Your task to perform on an android device: Search for "macbook pro 13 inch" on walmart.com, select the first entry, add it to the cart, then select checkout. Image 0: 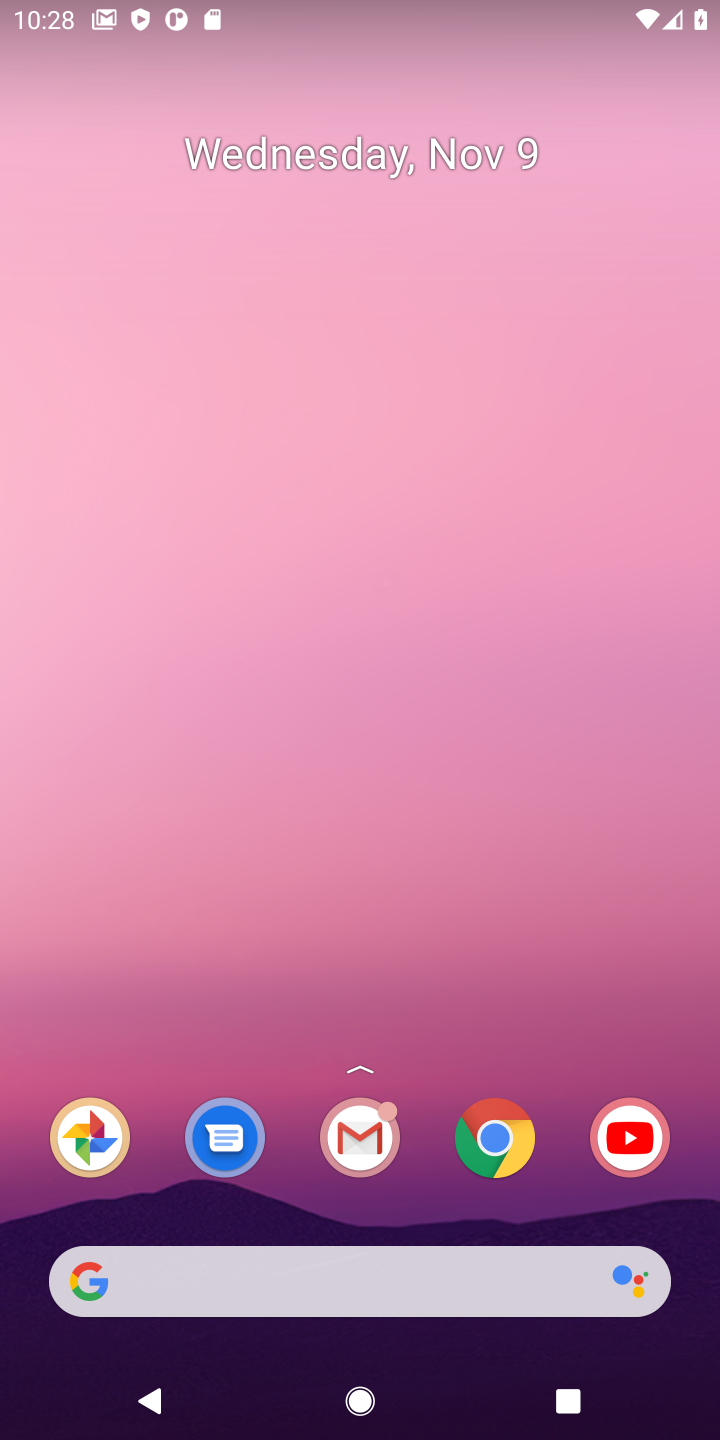
Step 0: drag from (297, 1214) to (197, 125)
Your task to perform on an android device: Search for "macbook pro 13 inch" on walmart.com, select the first entry, add it to the cart, then select checkout. Image 1: 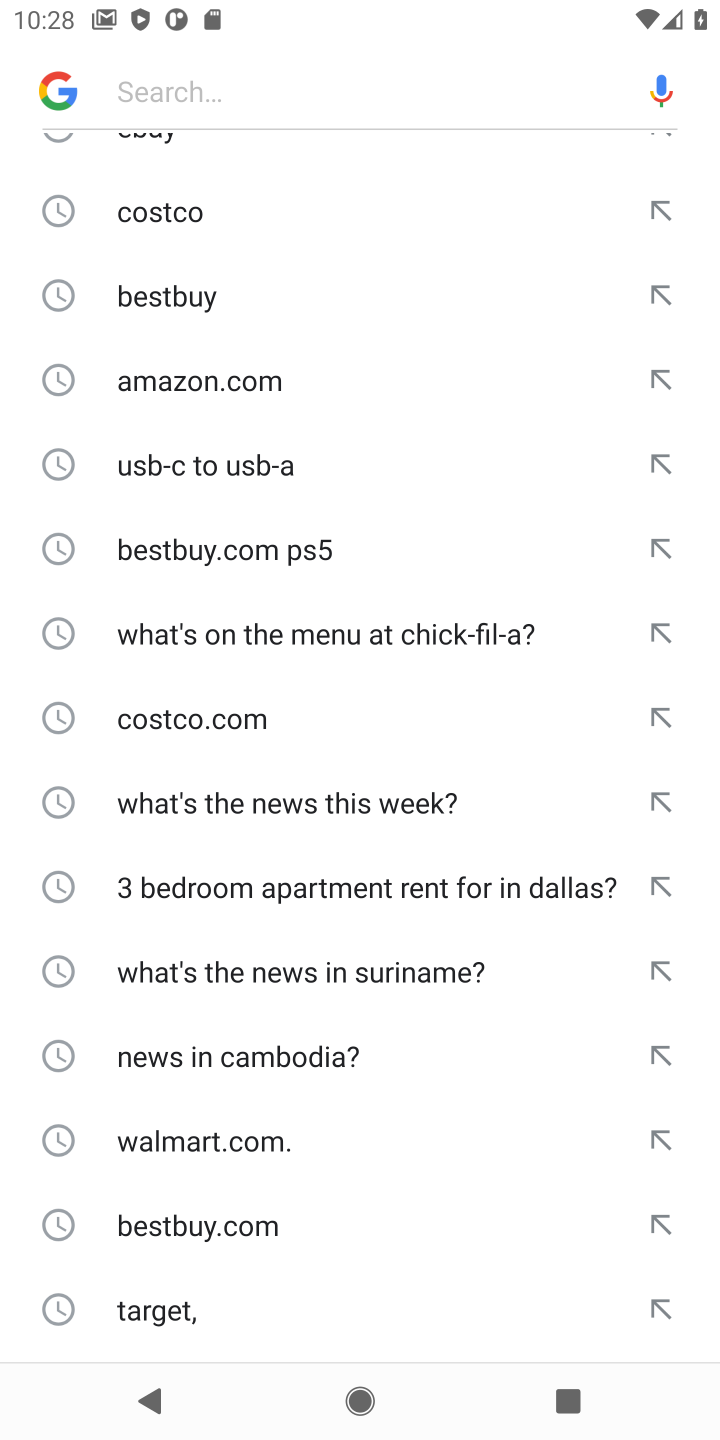
Step 1: press home button
Your task to perform on an android device: Search for "macbook pro 13 inch" on walmart.com, select the first entry, add it to the cart, then select checkout. Image 2: 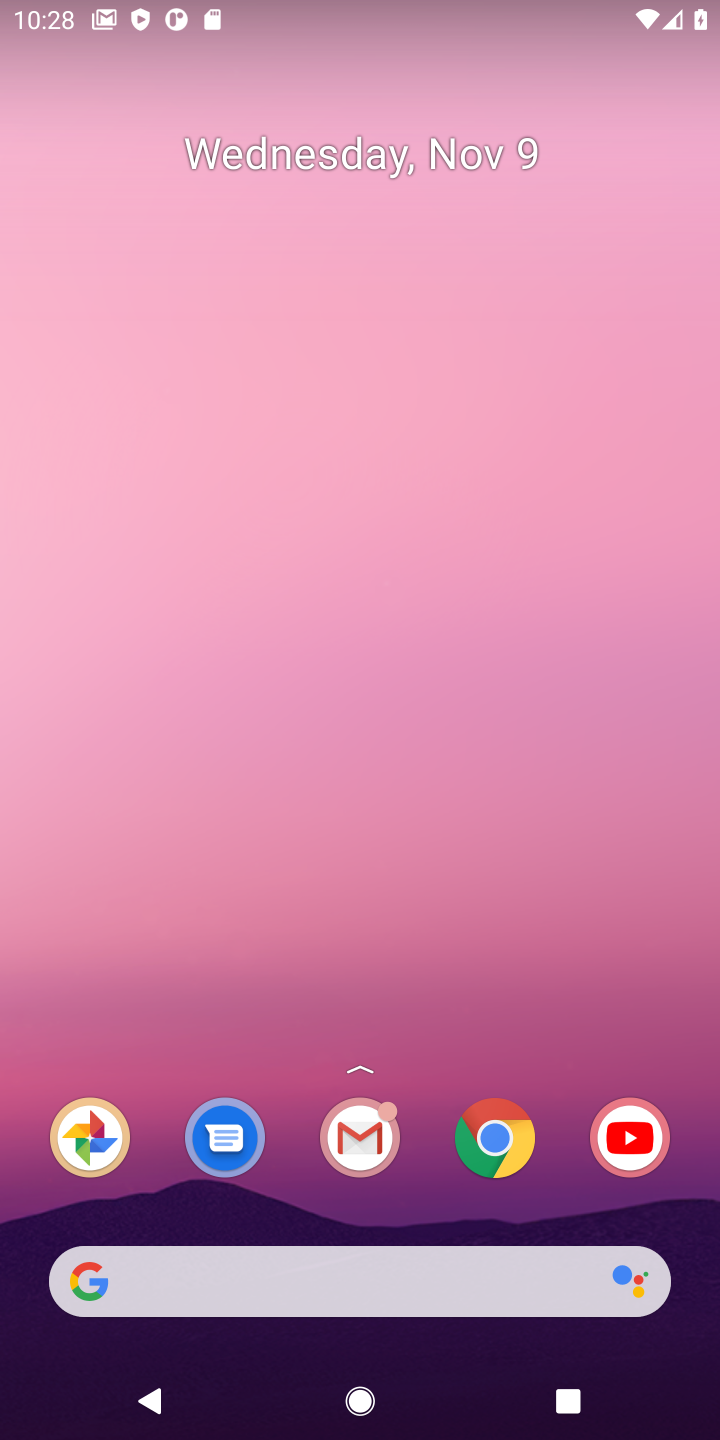
Step 2: drag from (414, 1197) to (349, 32)
Your task to perform on an android device: Search for "macbook pro 13 inch" on walmart.com, select the first entry, add it to the cart, then select checkout. Image 3: 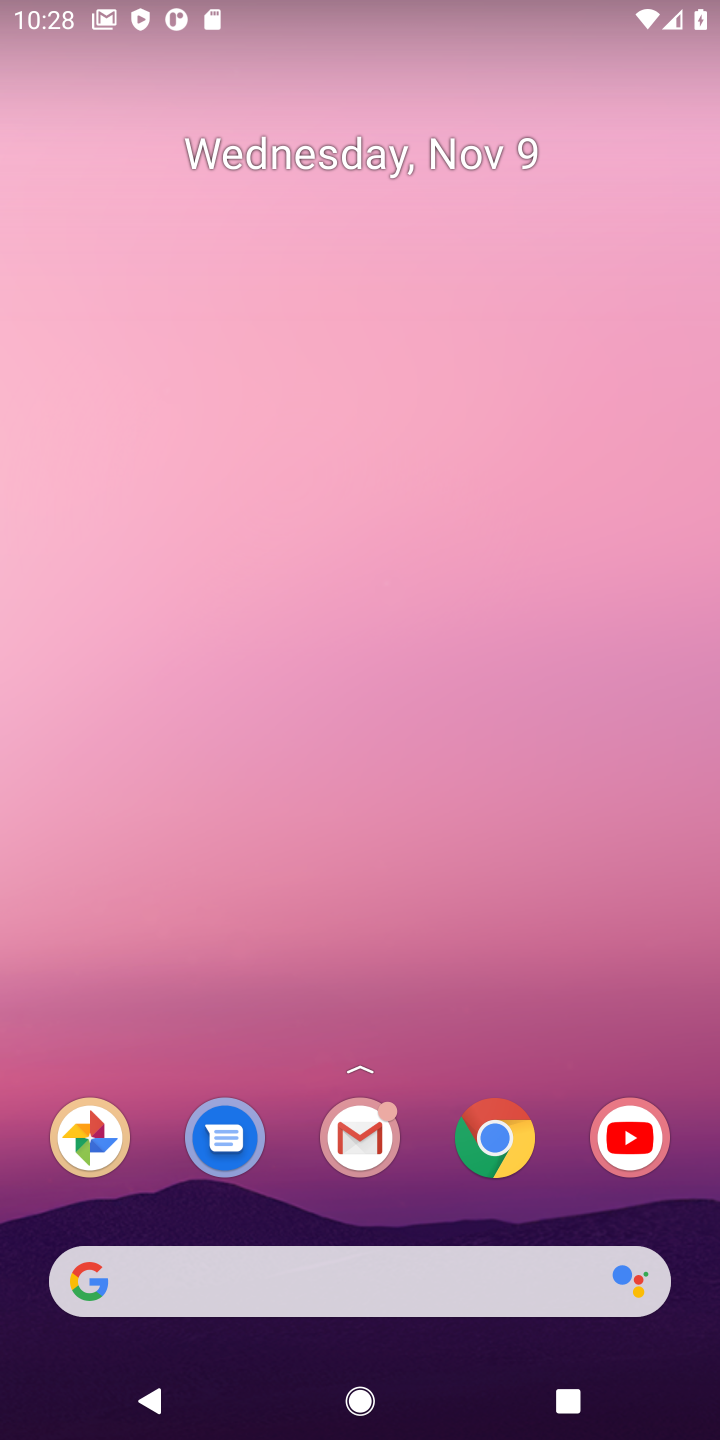
Step 3: drag from (427, 804) to (390, 0)
Your task to perform on an android device: Search for "macbook pro 13 inch" on walmart.com, select the first entry, add it to the cart, then select checkout. Image 4: 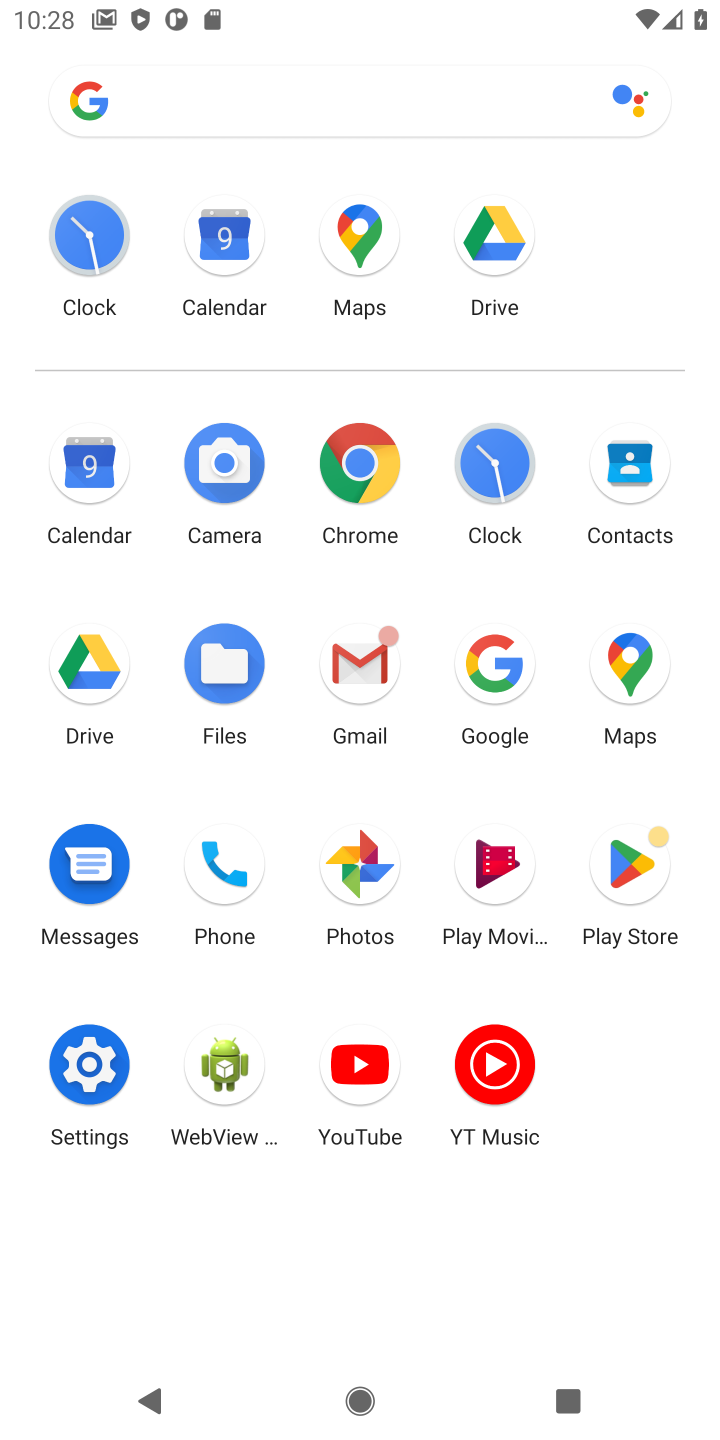
Step 4: click (358, 471)
Your task to perform on an android device: Search for "macbook pro 13 inch" on walmart.com, select the first entry, add it to the cart, then select checkout. Image 5: 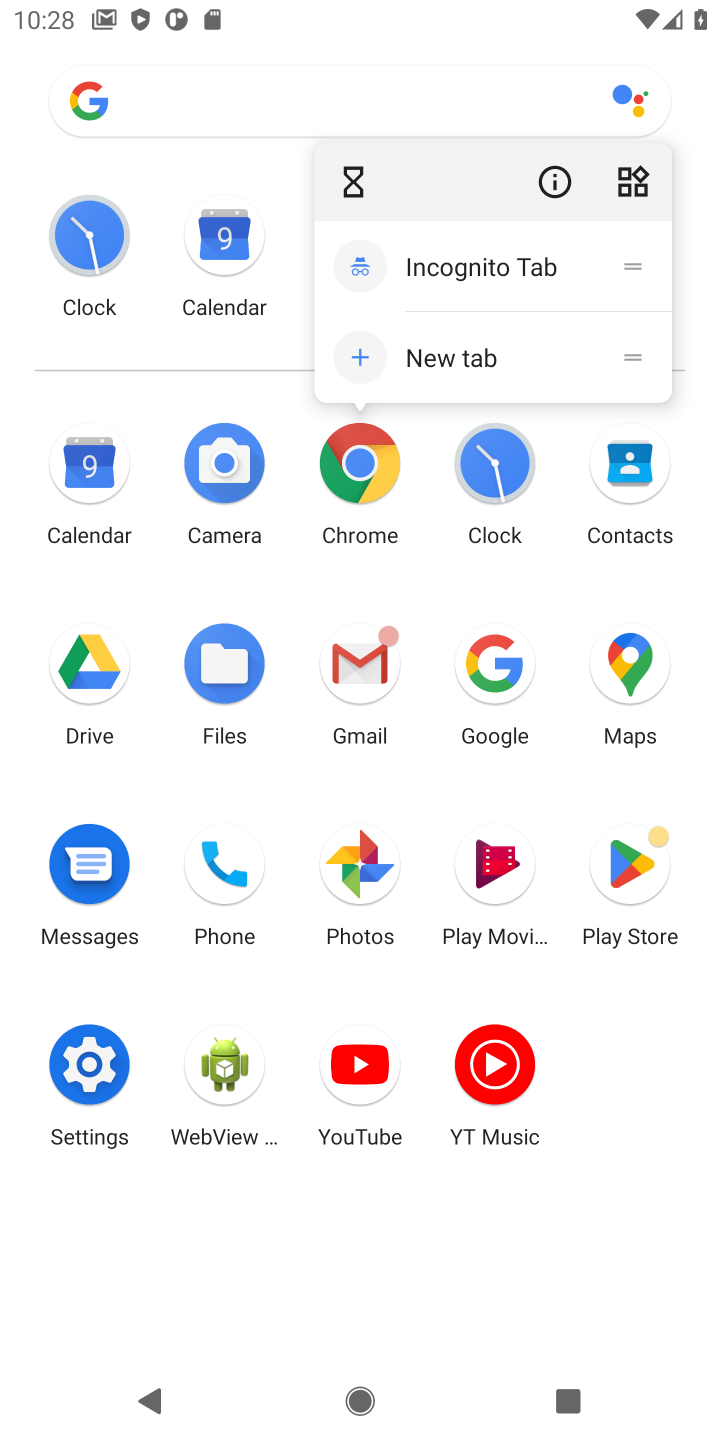
Step 5: click (362, 482)
Your task to perform on an android device: Search for "macbook pro 13 inch" on walmart.com, select the first entry, add it to the cart, then select checkout. Image 6: 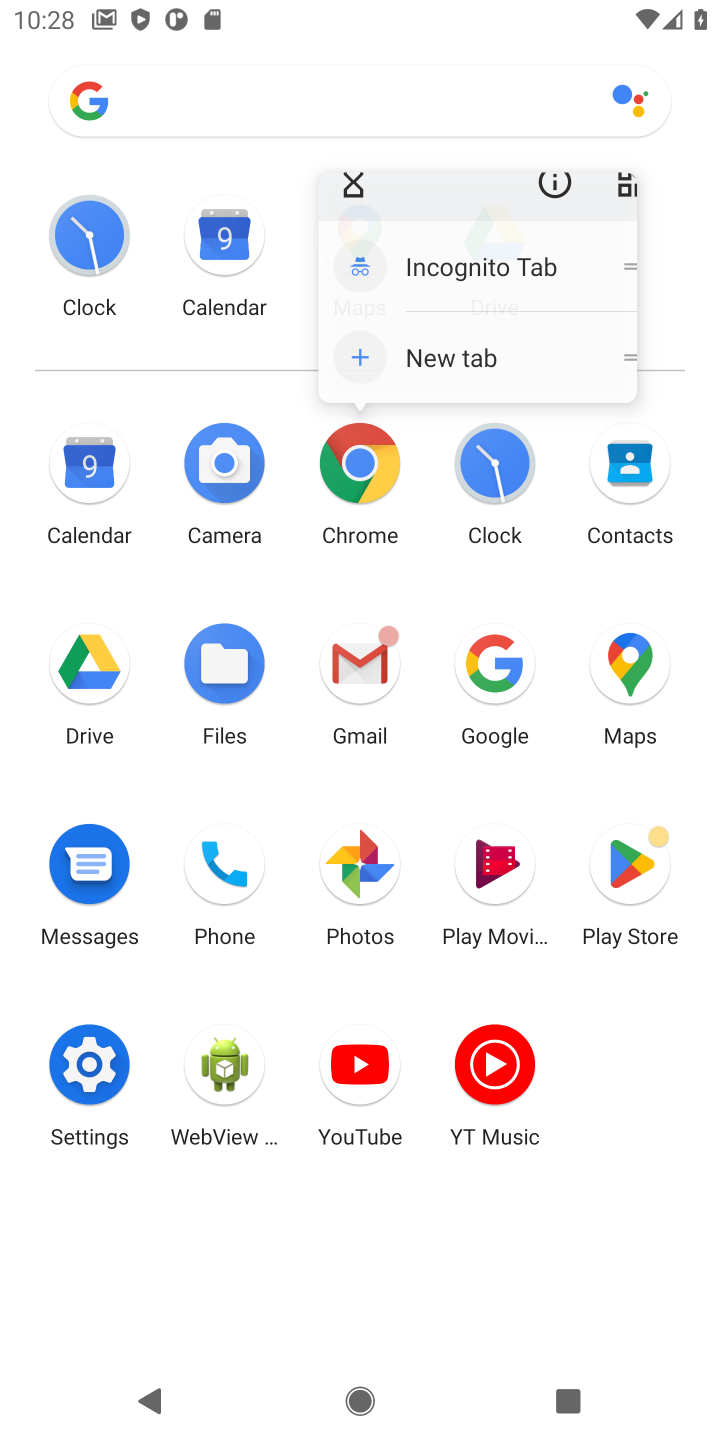
Step 6: click (362, 471)
Your task to perform on an android device: Search for "macbook pro 13 inch" on walmart.com, select the first entry, add it to the cart, then select checkout. Image 7: 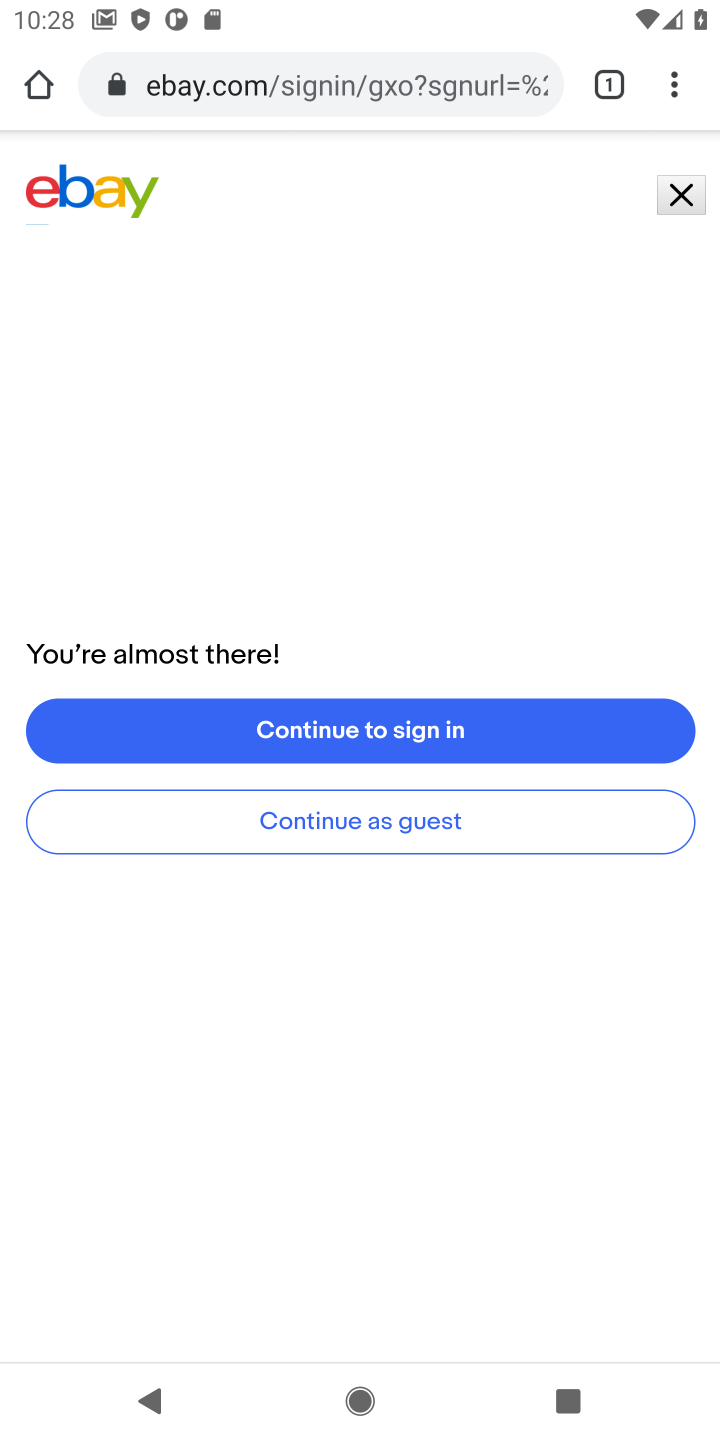
Step 7: click (389, 84)
Your task to perform on an android device: Search for "macbook pro 13 inch" on walmart.com, select the first entry, add it to the cart, then select checkout. Image 8: 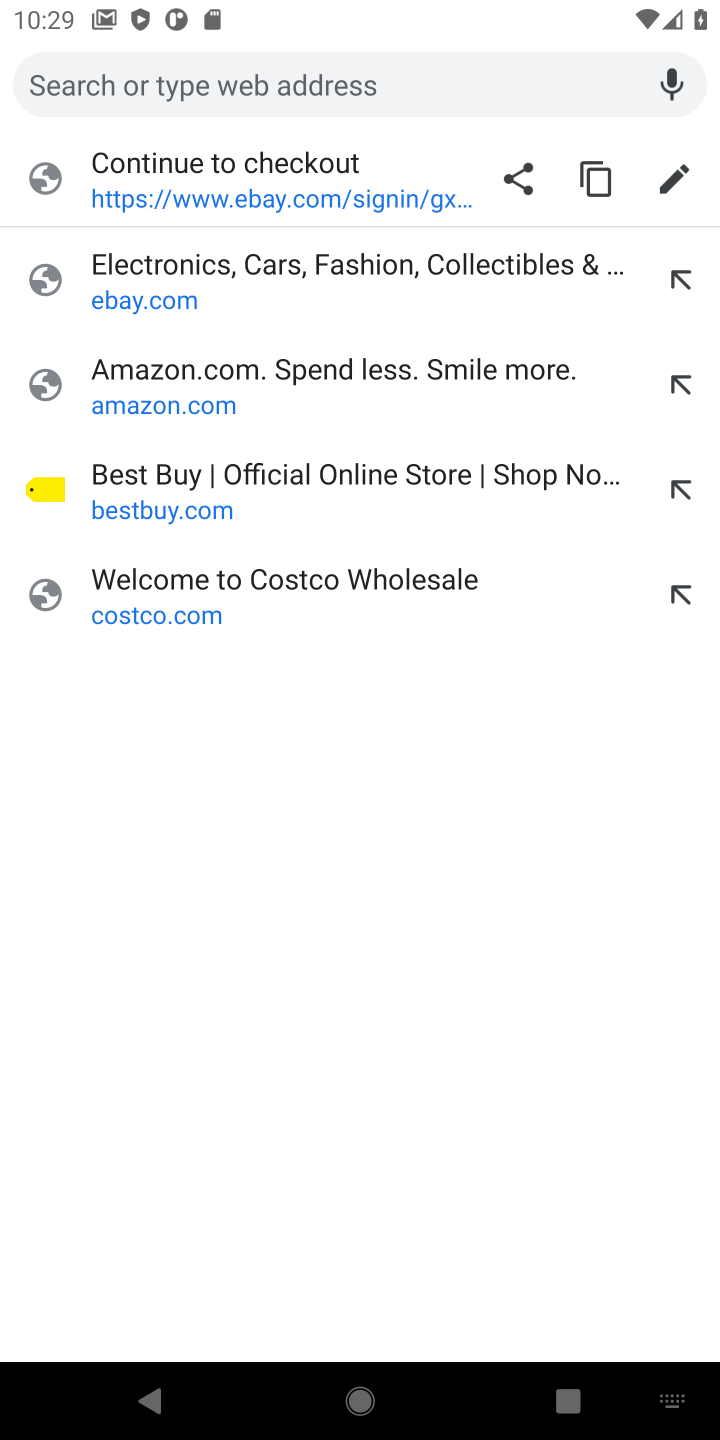
Step 8: type "walmart.com"
Your task to perform on an android device: Search for "macbook pro 13 inch" on walmart.com, select the first entry, add it to the cart, then select checkout. Image 9: 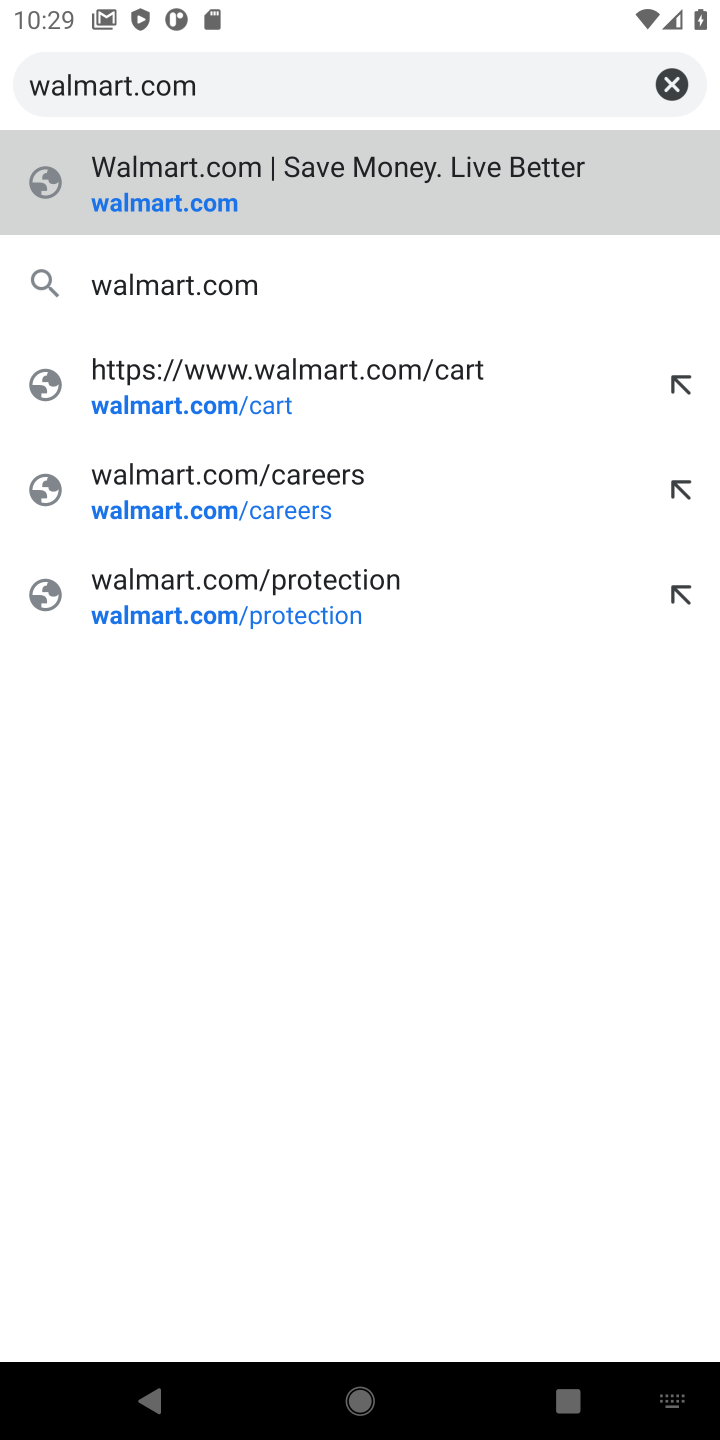
Step 9: press enter
Your task to perform on an android device: Search for "macbook pro 13 inch" on walmart.com, select the first entry, add it to the cart, then select checkout. Image 10: 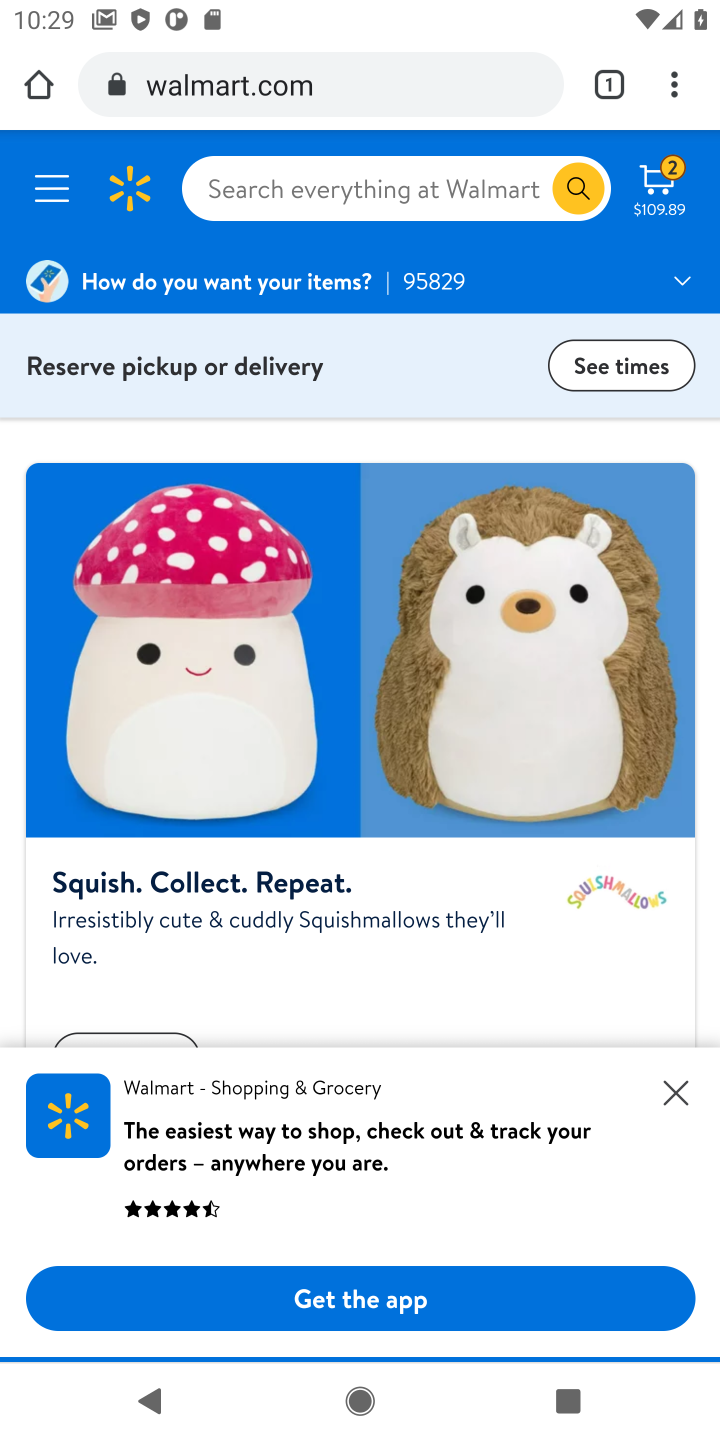
Step 10: click (463, 182)
Your task to perform on an android device: Search for "macbook pro 13 inch" on walmart.com, select the first entry, add it to the cart, then select checkout. Image 11: 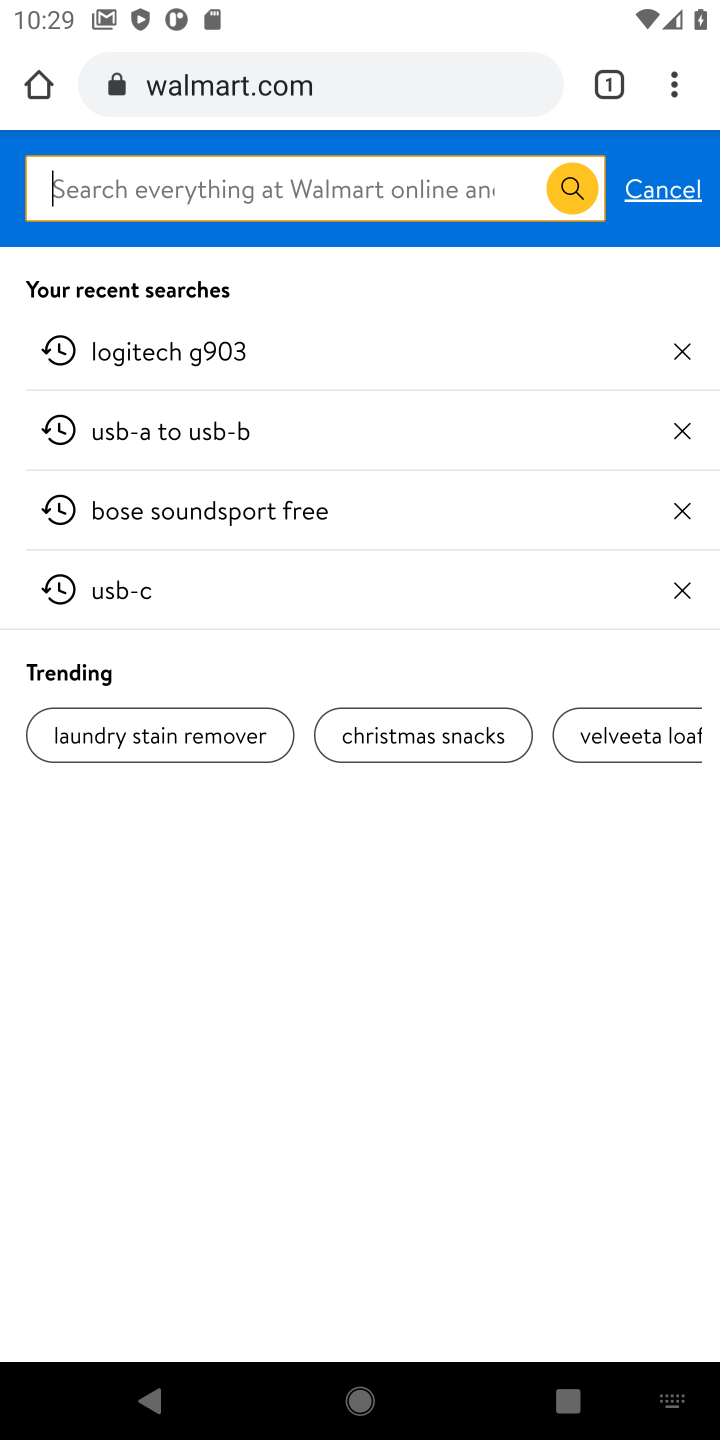
Step 11: type "macbook pro 13 inch"
Your task to perform on an android device: Search for "macbook pro 13 inch" on walmart.com, select the first entry, add it to the cart, then select checkout. Image 12: 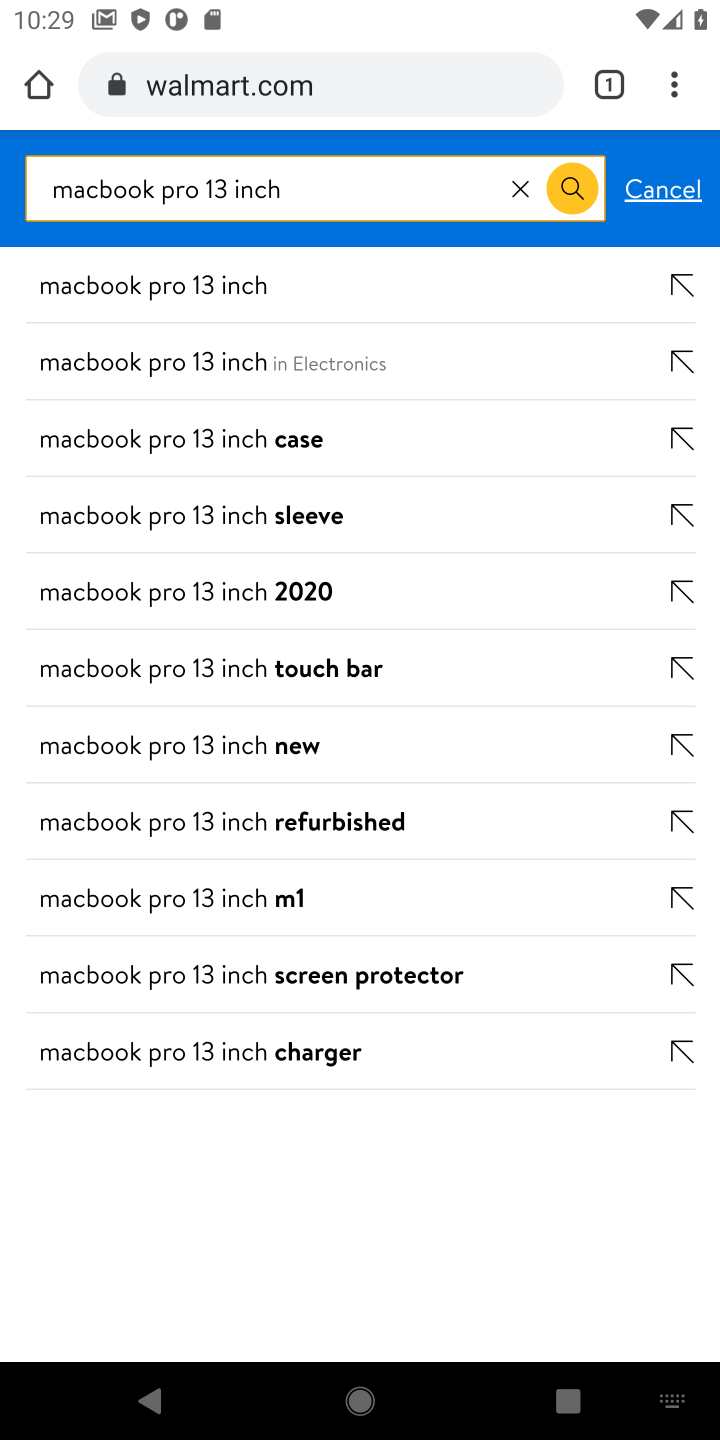
Step 12: press enter
Your task to perform on an android device: Search for "macbook pro 13 inch" on walmart.com, select the first entry, add it to the cart, then select checkout. Image 13: 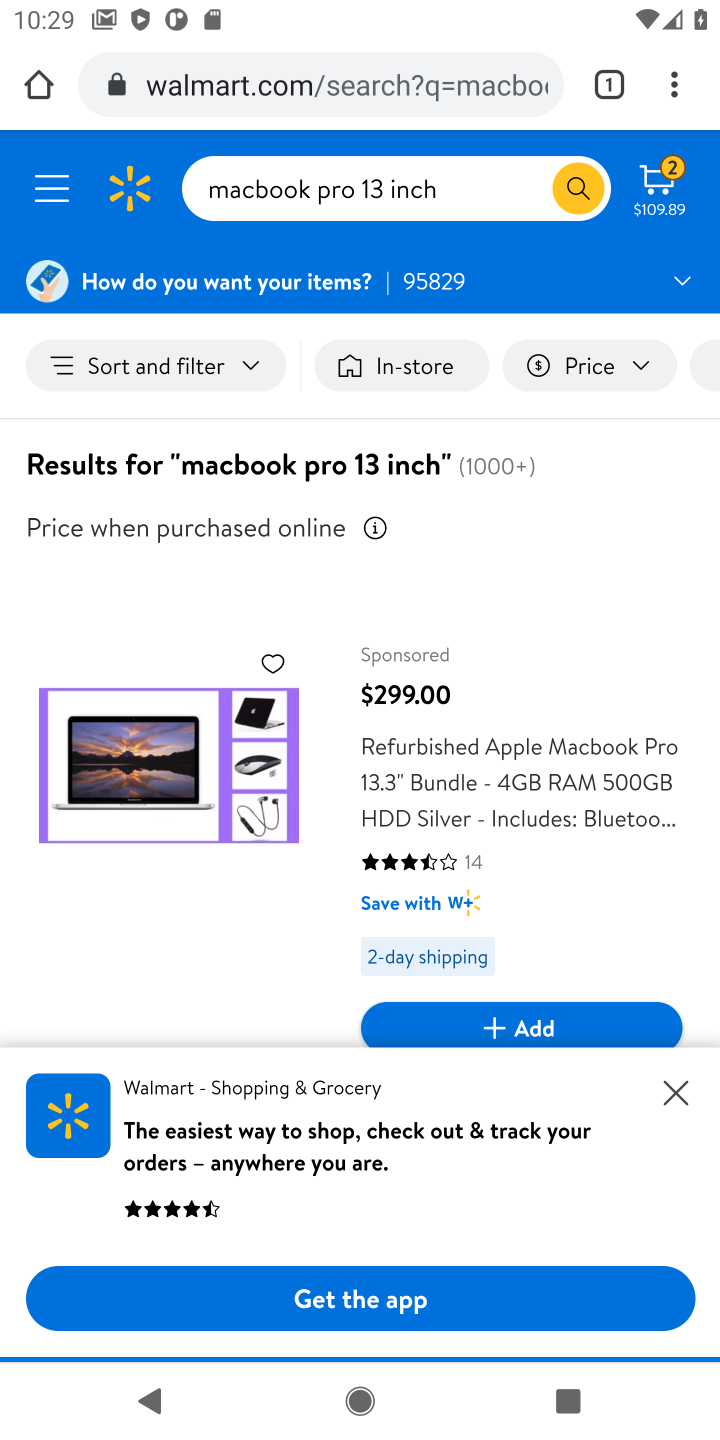
Step 13: drag from (586, 945) to (502, 297)
Your task to perform on an android device: Search for "macbook pro 13 inch" on walmart.com, select the first entry, add it to the cart, then select checkout. Image 14: 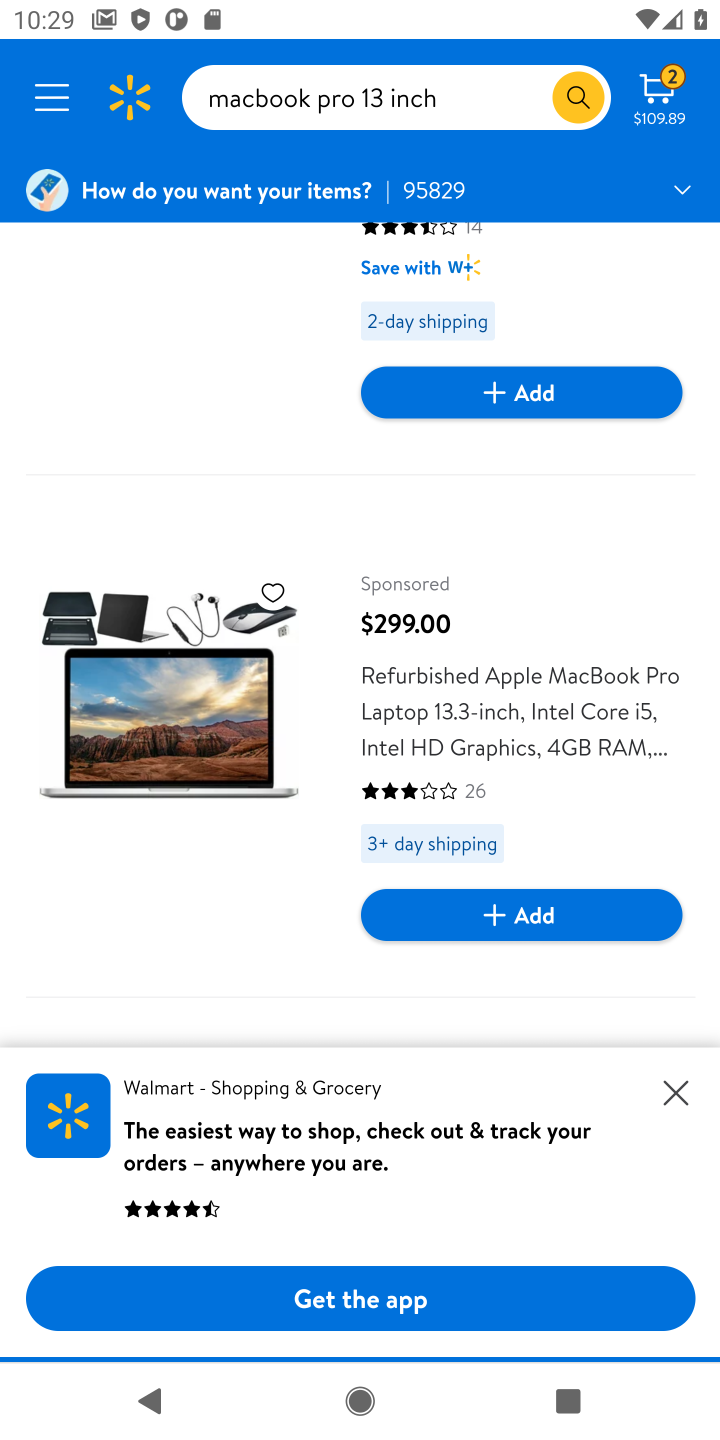
Step 14: drag from (213, 885) to (333, 73)
Your task to perform on an android device: Search for "macbook pro 13 inch" on walmart.com, select the first entry, add it to the cart, then select checkout. Image 15: 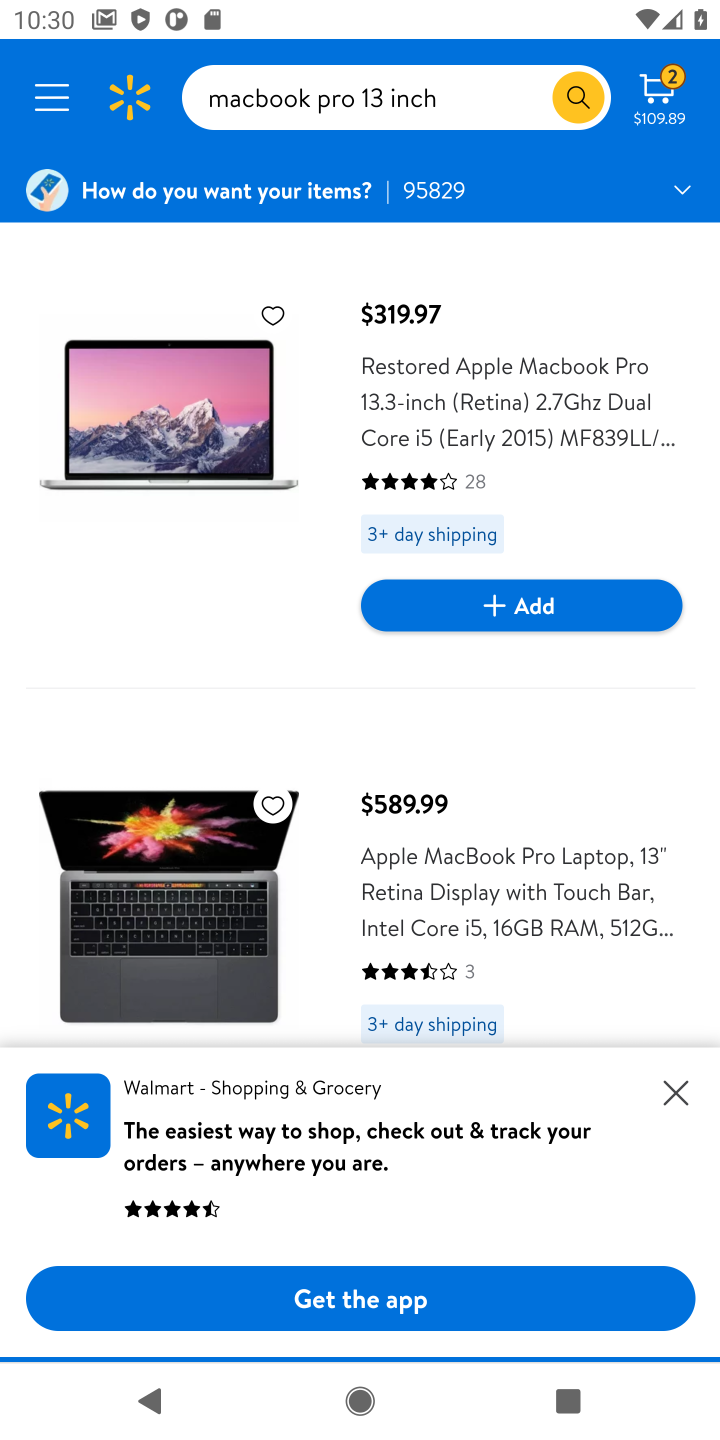
Step 15: drag from (519, 415) to (578, 487)
Your task to perform on an android device: Search for "macbook pro 13 inch" on walmart.com, select the first entry, add it to the cart, then select checkout. Image 16: 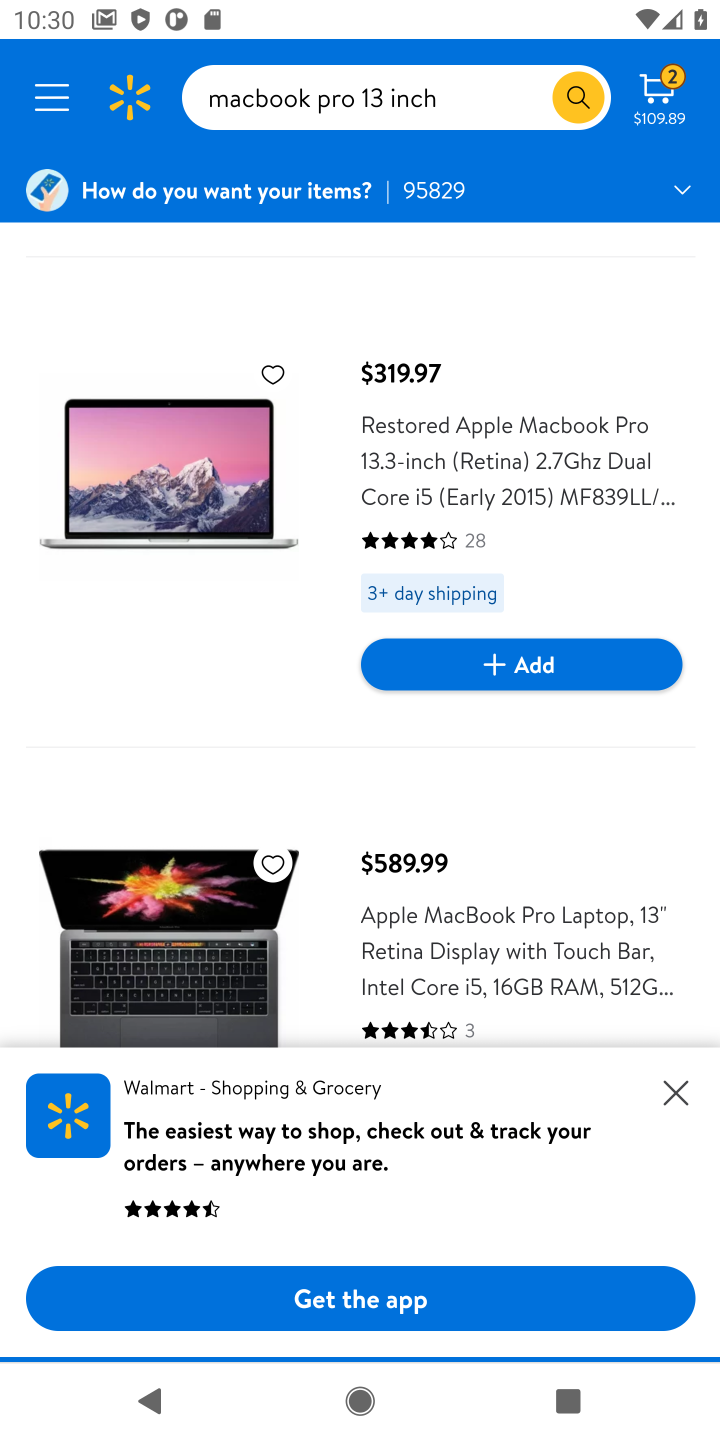
Step 16: click (463, 480)
Your task to perform on an android device: Search for "macbook pro 13 inch" on walmart.com, select the first entry, add it to the cart, then select checkout. Image 17: 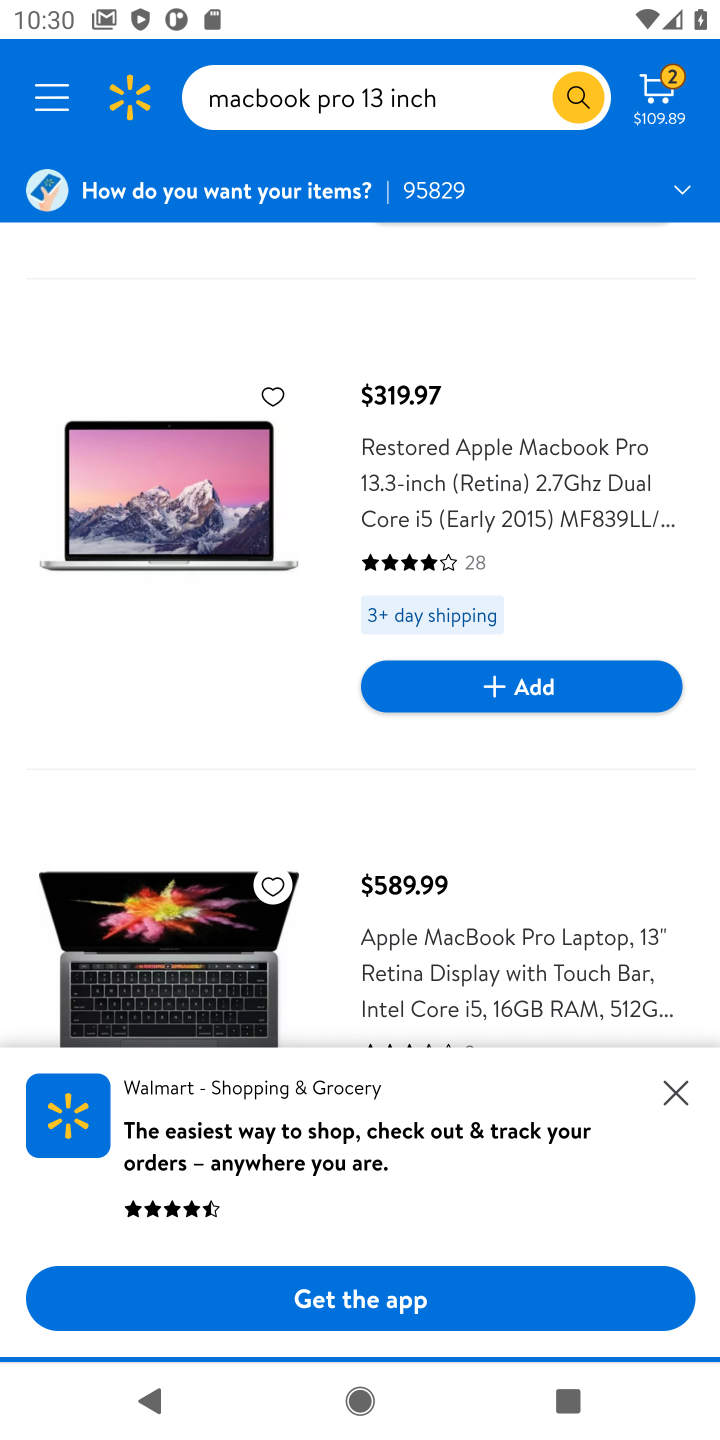
Step 17: click (525, 695)
Your task to perform on an android device: Search for "macbook pro 13 inch" on walmart.com, select the first entry, add it to the cart, then select checkout. Image 18: 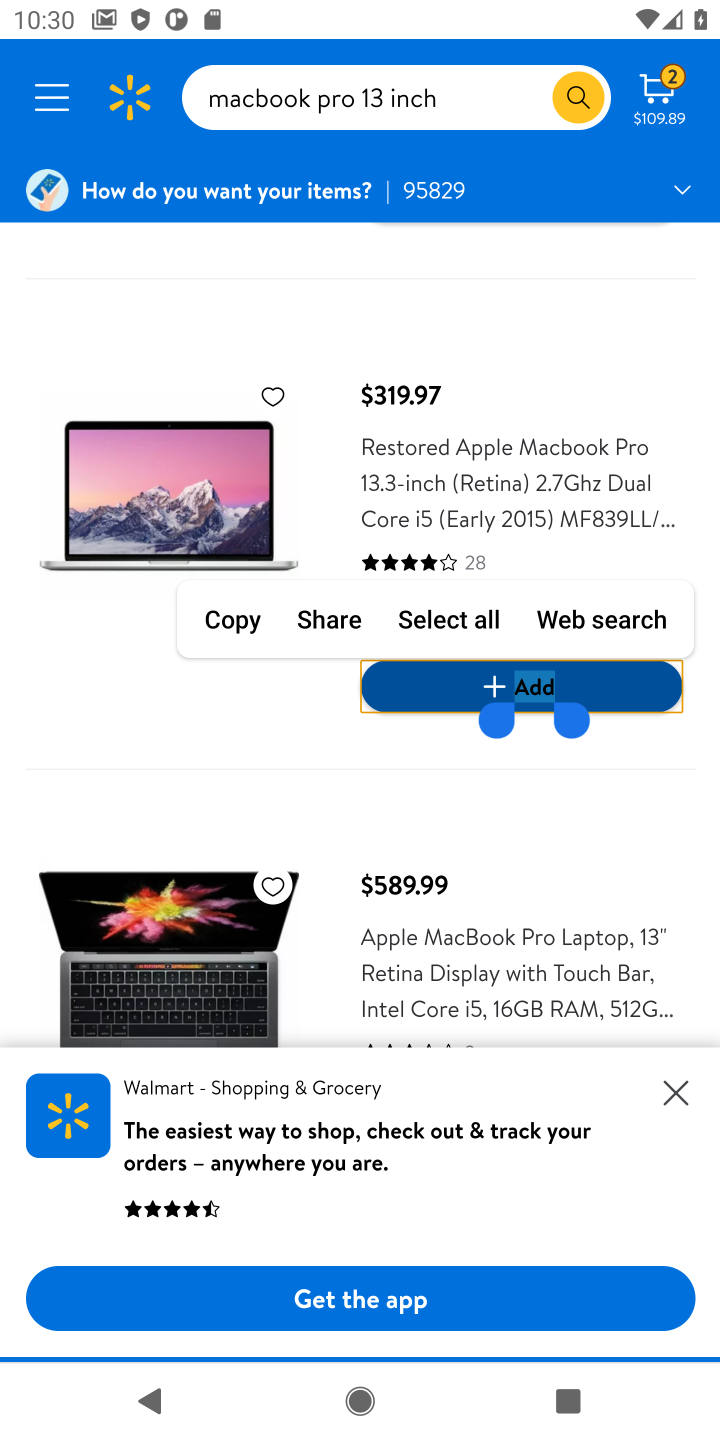
Step 18: click (462, 737)
Your task to perform on an android device: Search for "macbook pro 13 inch" on walmart.com, select the first entry, add it to the cart, then select checkout. Image 19: 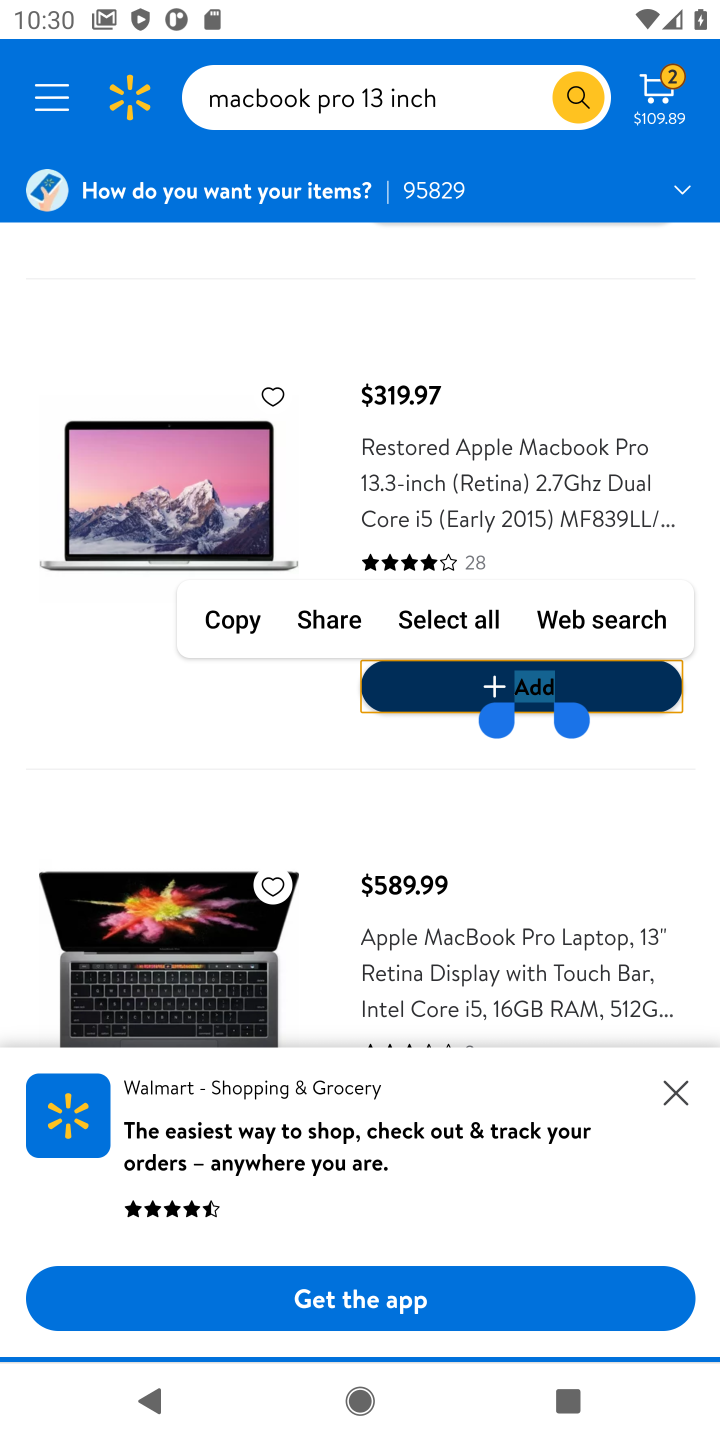
Step 19: click (513, 689)
Your task to perform on an android device: Search for "macbook pro 13 inch" on walmart.com, select the first entry, add it to the cart, then select checkout. Image 20: 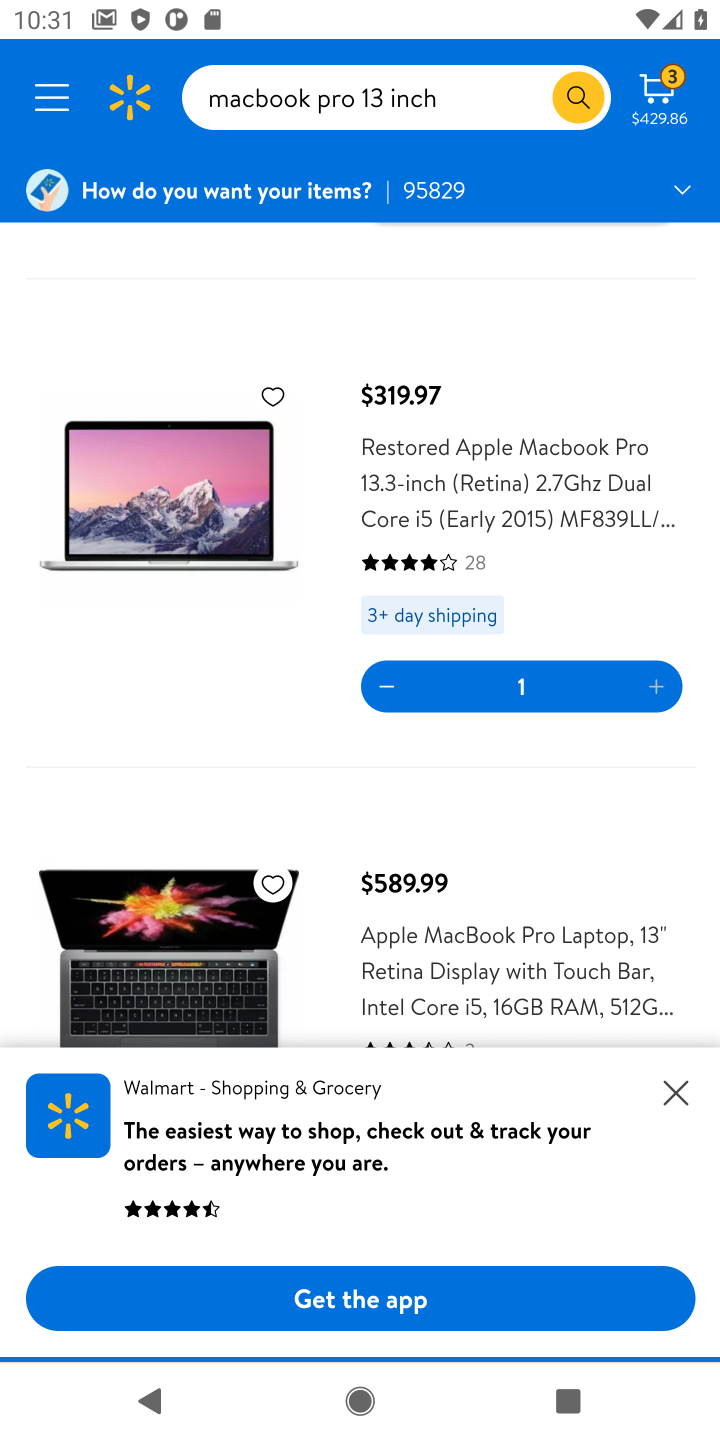
Step 20: click (665, 90)
Your task to perform on an android device: Search for "macbook pro 13 inch" on walmart.com, select the first entry, add it to the cart, then select checkout. Image 21: 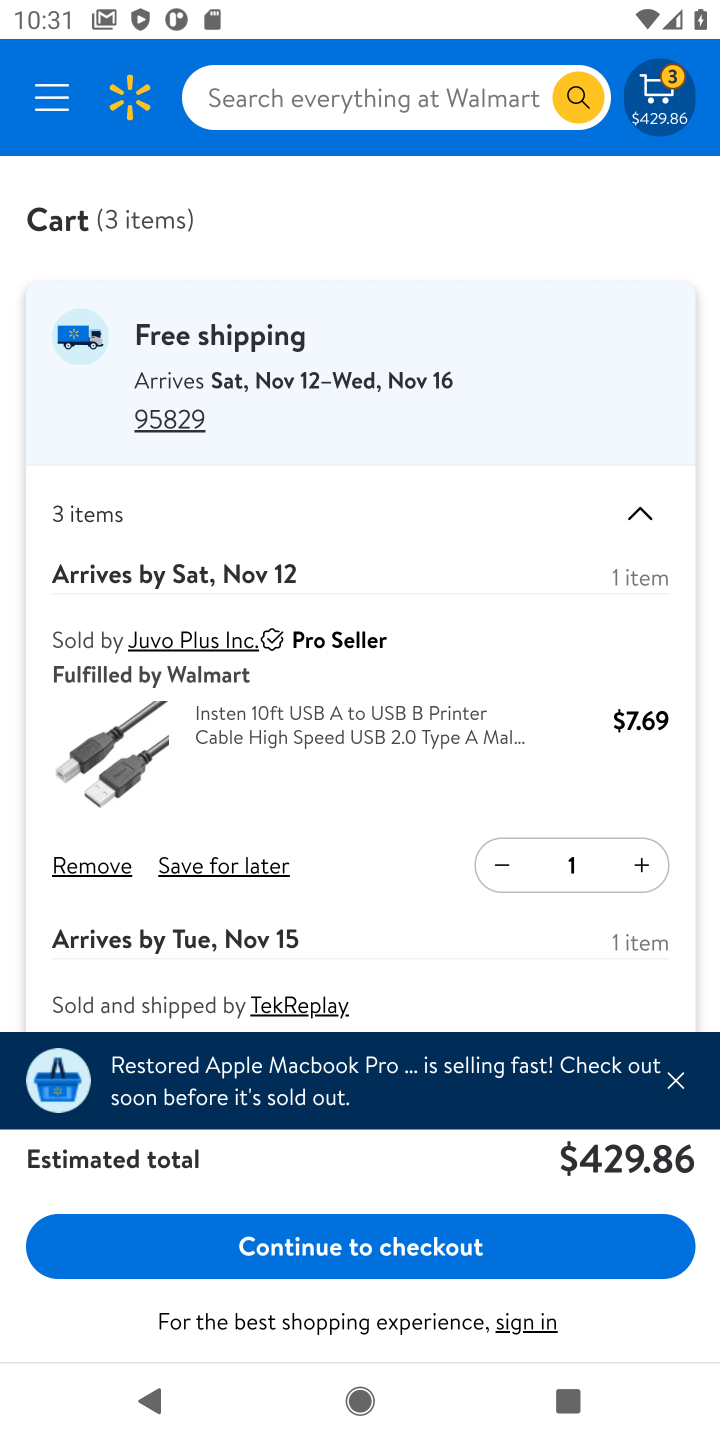
Step 21: click (413, 1253)
Your task to perform on an android device: Search for "macbook pro 13 inch" on walmart.com, select the first entry, add it to the cart, then select checkout. Image 22: 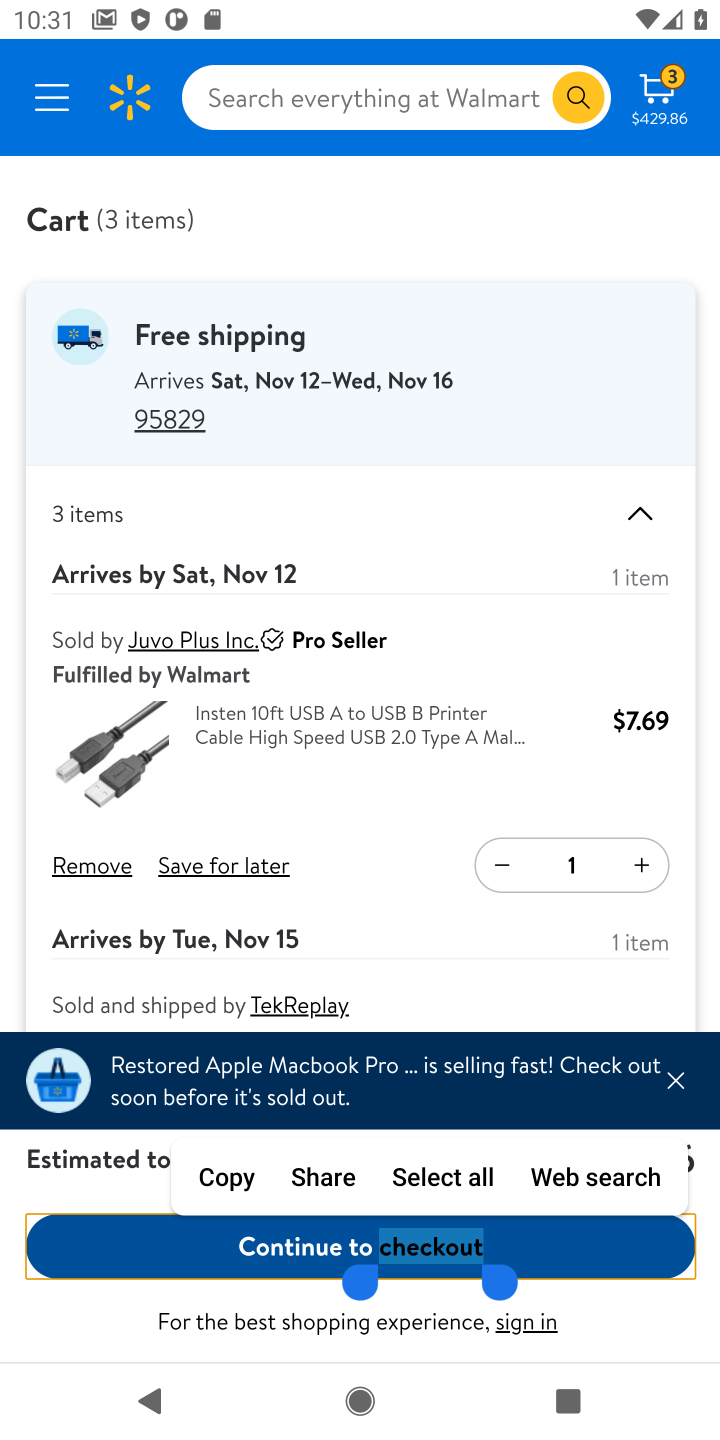
Step 22: click (314, 1245)
Your task to perform on an android device: Search for "macbook pro 13 inch" on walmart.com, select the first entry, add it to the cart, then select checkout. Image 23: 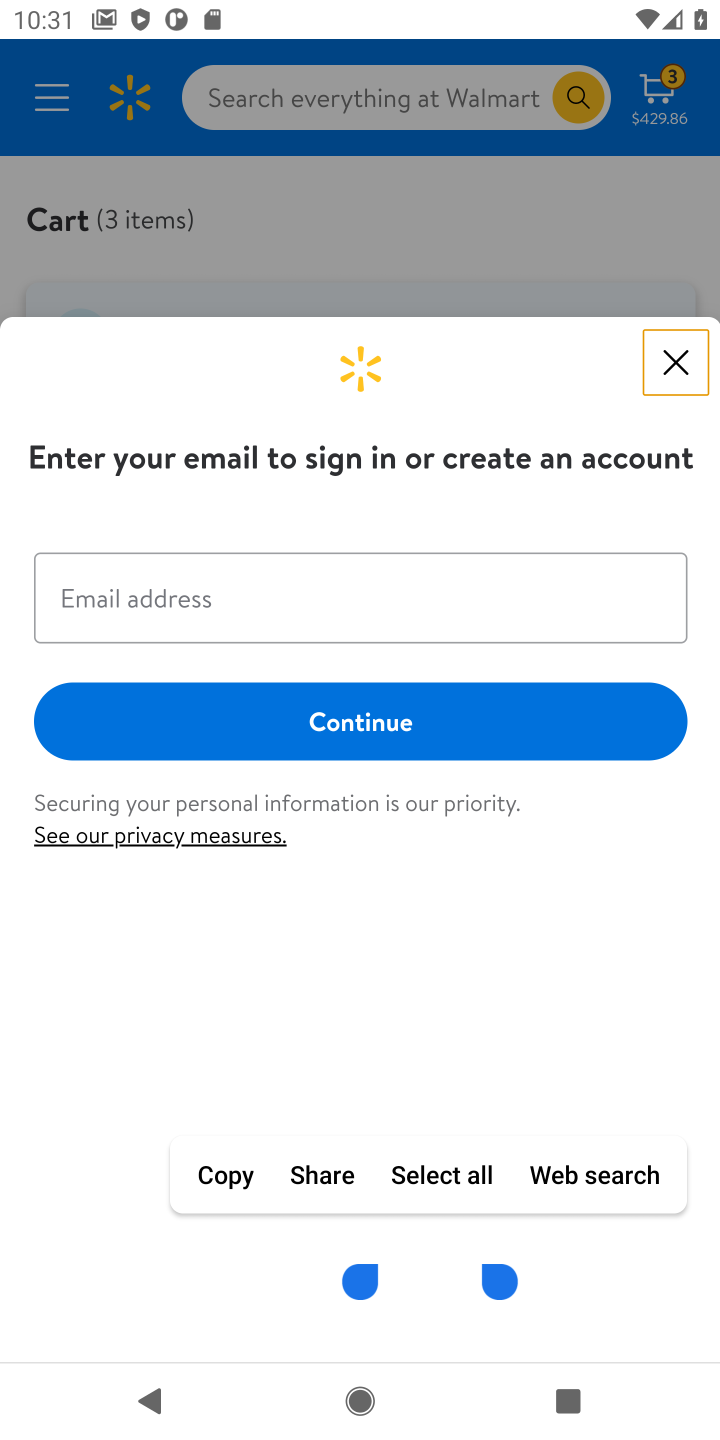
Step 23: task complete